Your task to perform on an android device: What's the weather going to be this weekend? Image 0: 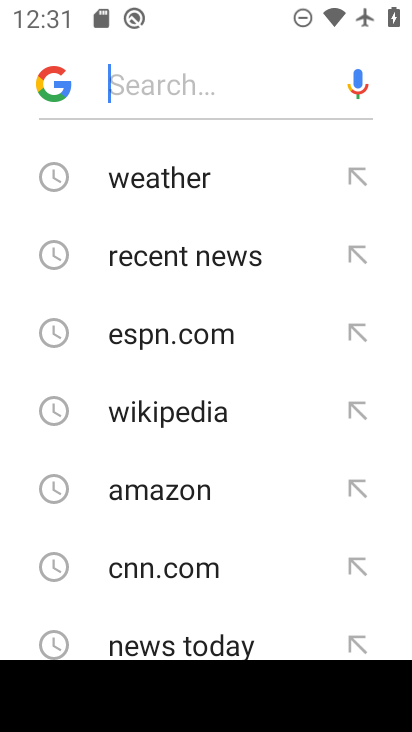
Step 0: press home button
Your task to perform on an android device: What's the weather going to be this weekend? Image 1: 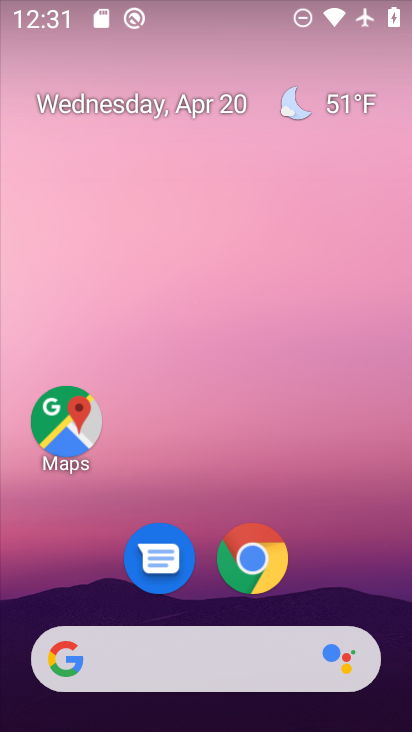
Step 1: drag from (352, 599) to (292, 213)
Your task to perform on an android device: What's the weather going to be this weekend? Image 2: 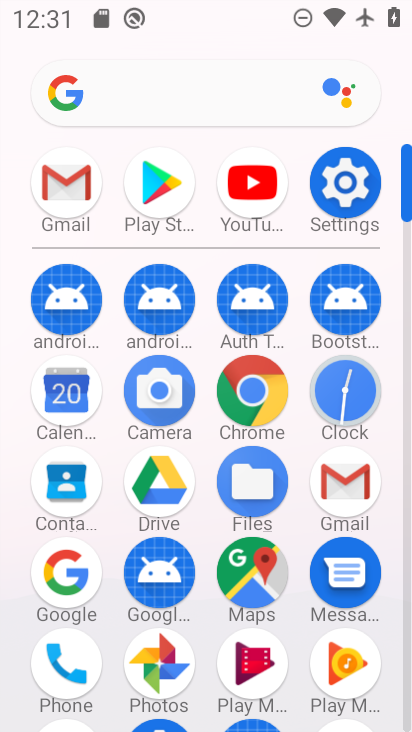
Step 2: click (407, 694)
Your task to perform on an android device: What's the weather going to be this weekend? Image 3: 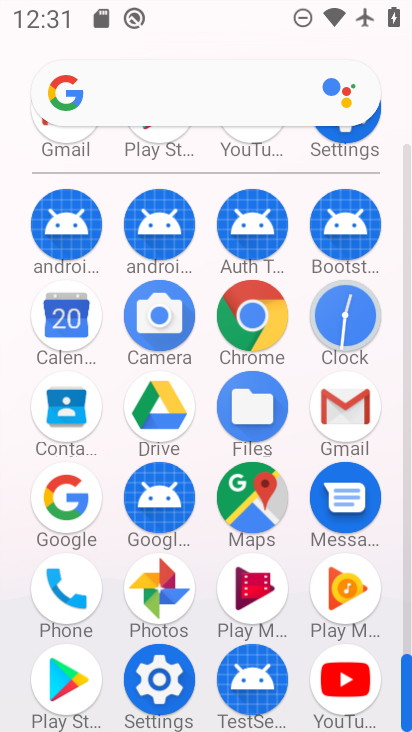
Step 3: click (63, 311)
Your task to perform on an android device: What's the weather going to be this weekend? Image 4: 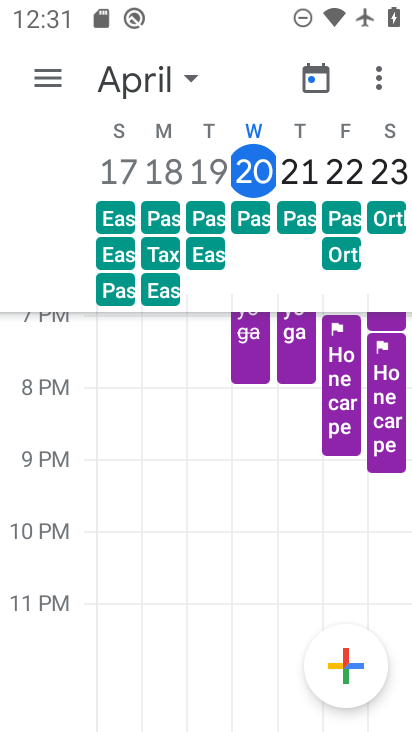
Step 4: task complete